Your task to perform on an android device: toggle location history Image 0: 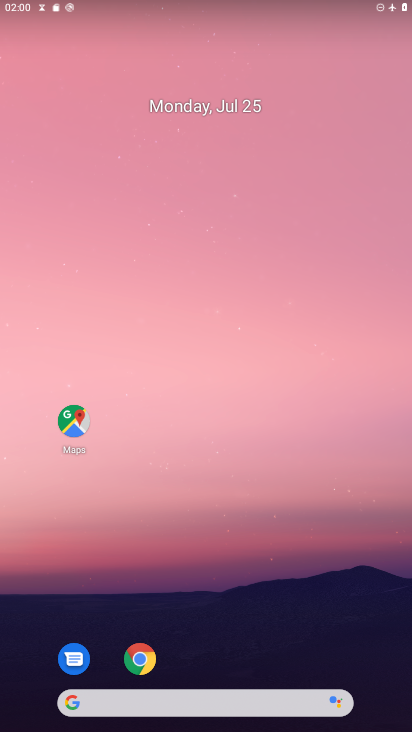
Step 0: press home button
Your task to perform on an android device: toggle location history Image 1: 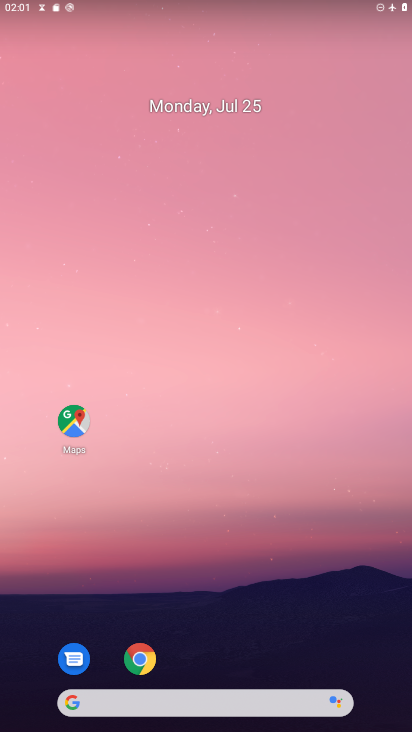
Step 1: drag from (258, 706) to (250, 154)
Your task to perform on an android device: toggle location history Image 2: 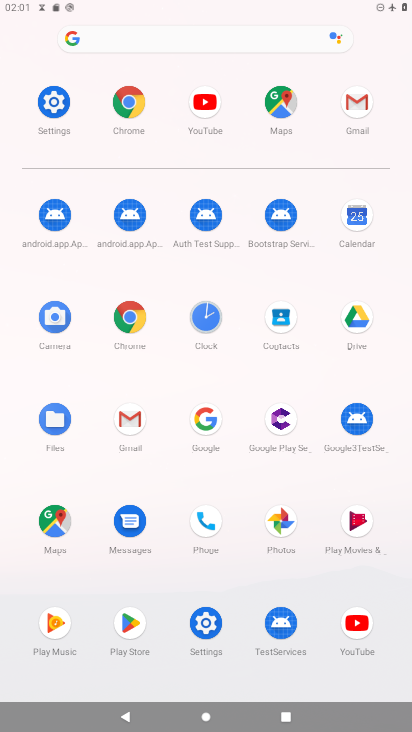
Step 2: click (50, 100)
Your task to perform on an android device: toggle location history Image 3: 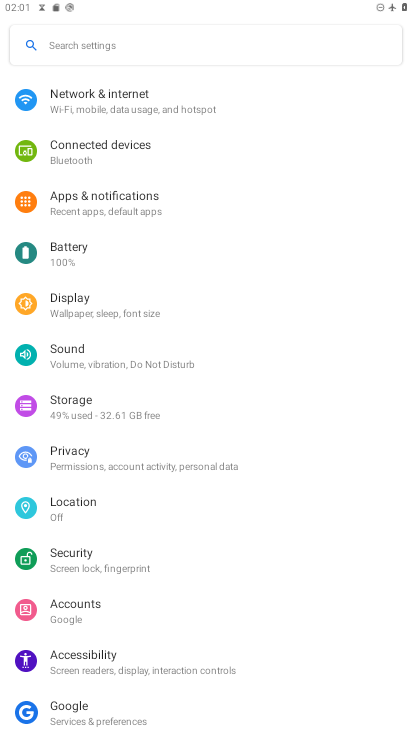
Step 3: click (88, 513)
Your task to perform on an android device: toggle location history Image 4: 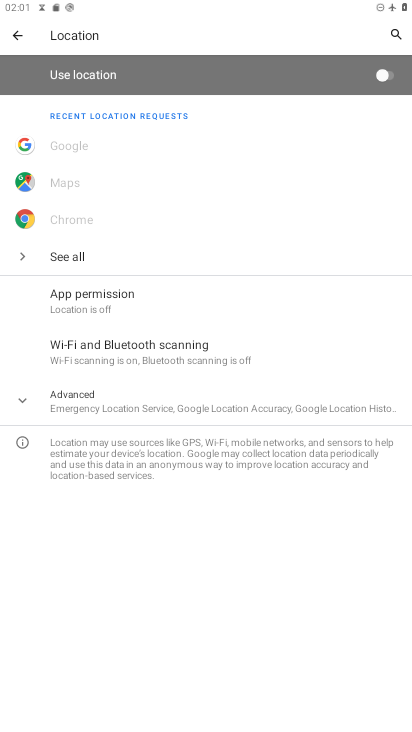
Step 4: click (170, 400)
Your task to perform on an android device: toggle location history Image 5: 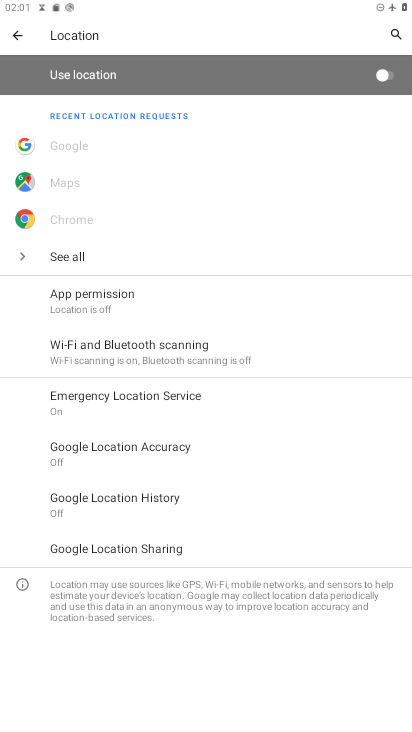
Step 5: click (160, 490)
Your task to perform on an android device: toggle location history Image 6: 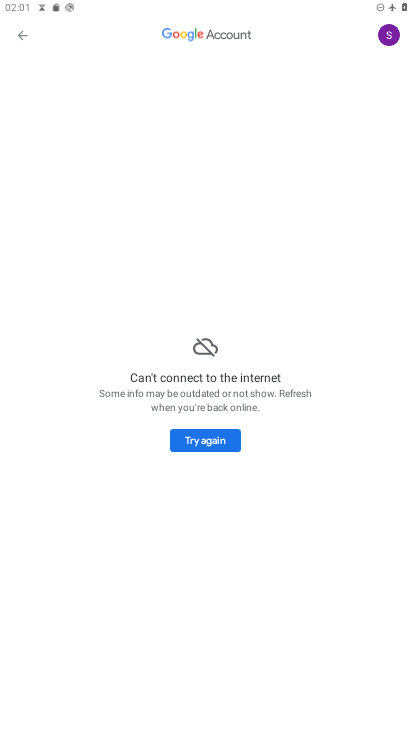
Step 6: task complete